Your task to perform on an android device: clear history in the chrome app Image 0: 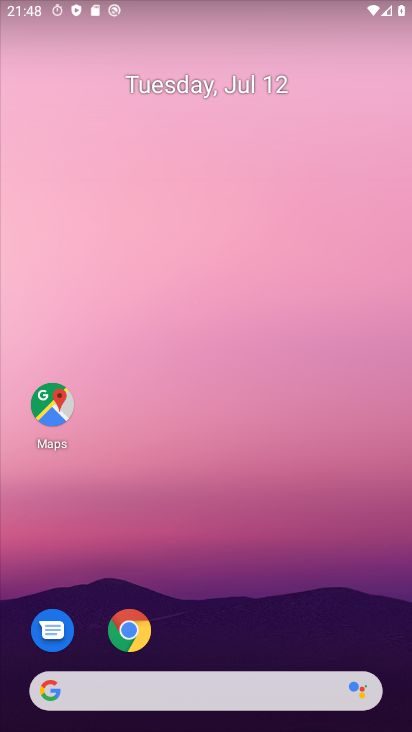
Step 0: click (130, 630)
Your task to perform on an android device: clear history in the chrome app Image 1: 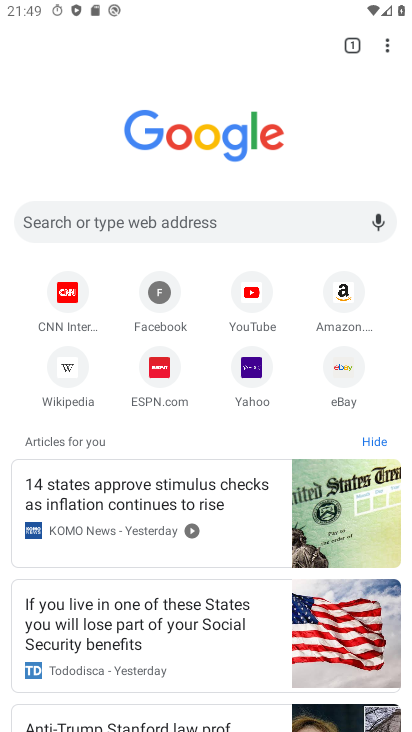
Step 1: drag from (386, 47) to (246, 253)
Your task to perform on an android device: clear history in the chrome app Image 2: 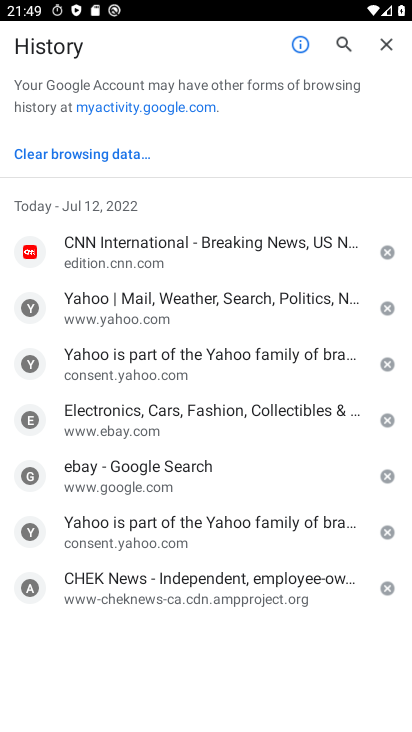
Step 2: click (107, 150)
Your task to perform on an android device: clear history in the chrome app Image 3: 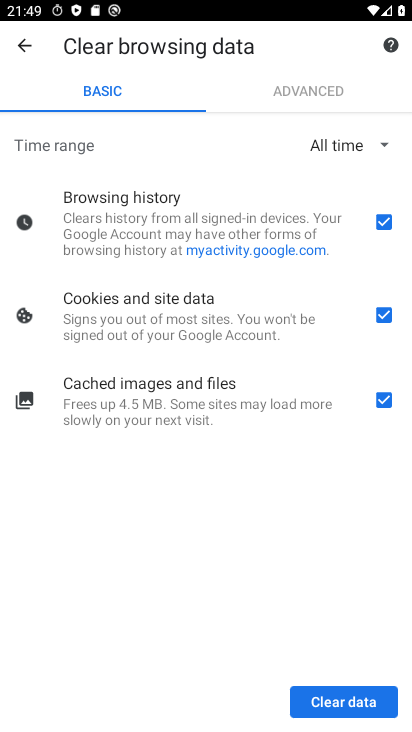
Step 3: click (347, 691)
Your task to perform on an android device: clear history in the chrome app Image 4: 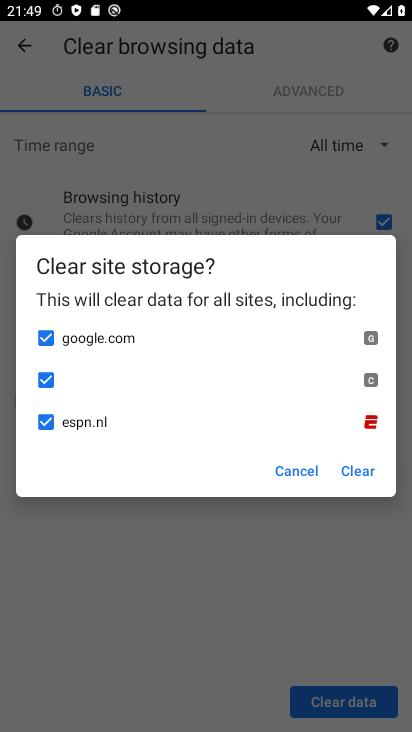
Step 4: click (349, 463)
Your task to perform on an android device: clear history in the chrome app Image 5: 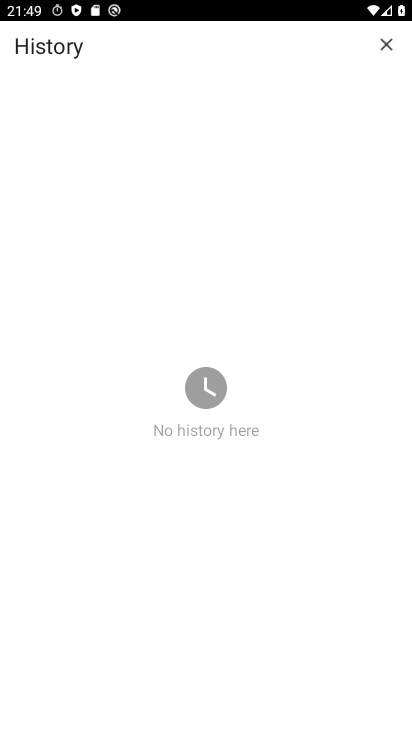
Step 5: task complete